Your task to perform on an android device: Go to network settings Image 0: 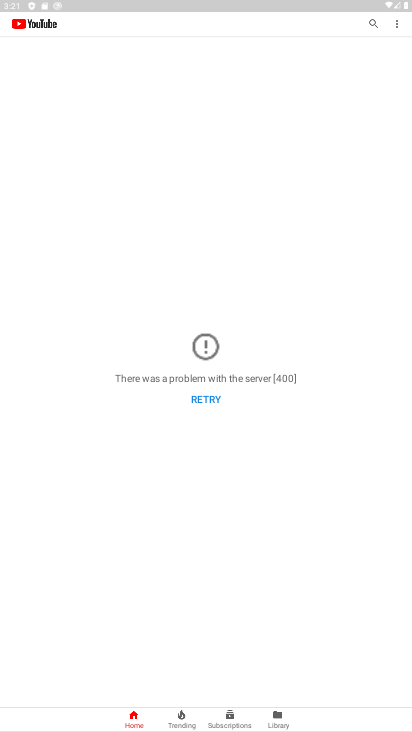
Step 0: press home button
Your task to perform on an android device: Go to network settings Image 1: 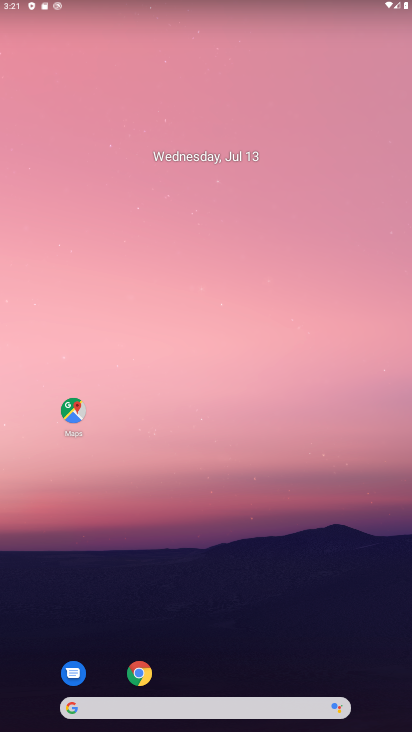
Step 1: drag from (191, 704) to (276, 106)
Your task to perform on an android device: Go to network settings Image 2: 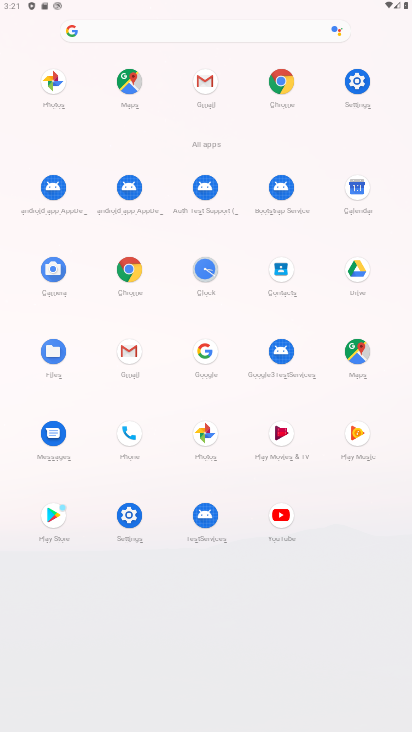
Step 2: click (359, 82)
Your task to perform on an android device: Go to network settings Image 3: 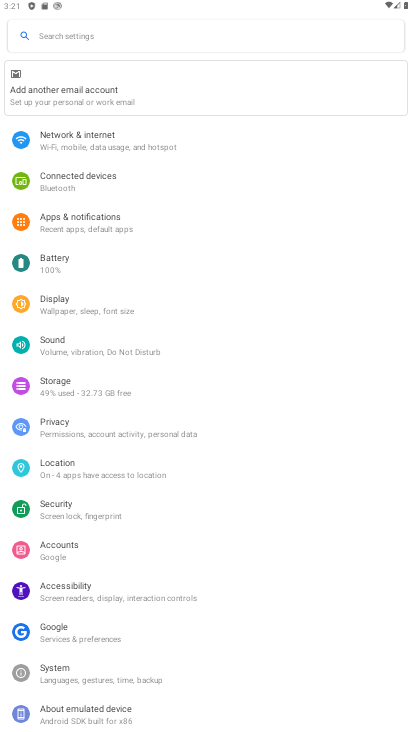
Step 3: click (131, 146)
Your task to perform on an android device: Go to network settings Image 4: 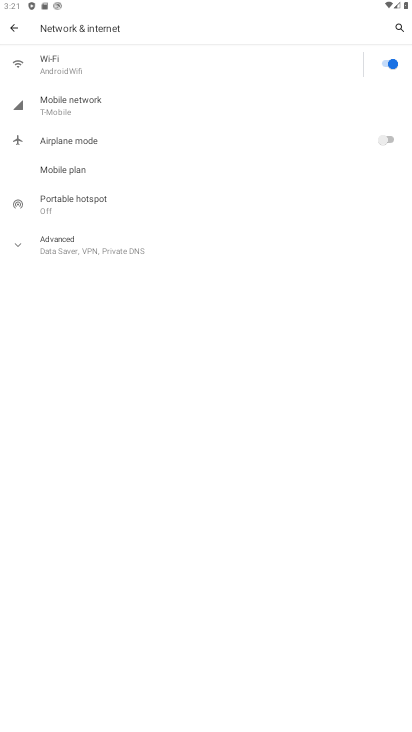
Step 4: task complete